Your task to perform on an android device: move an email to a new category in the gmail app Image 0: 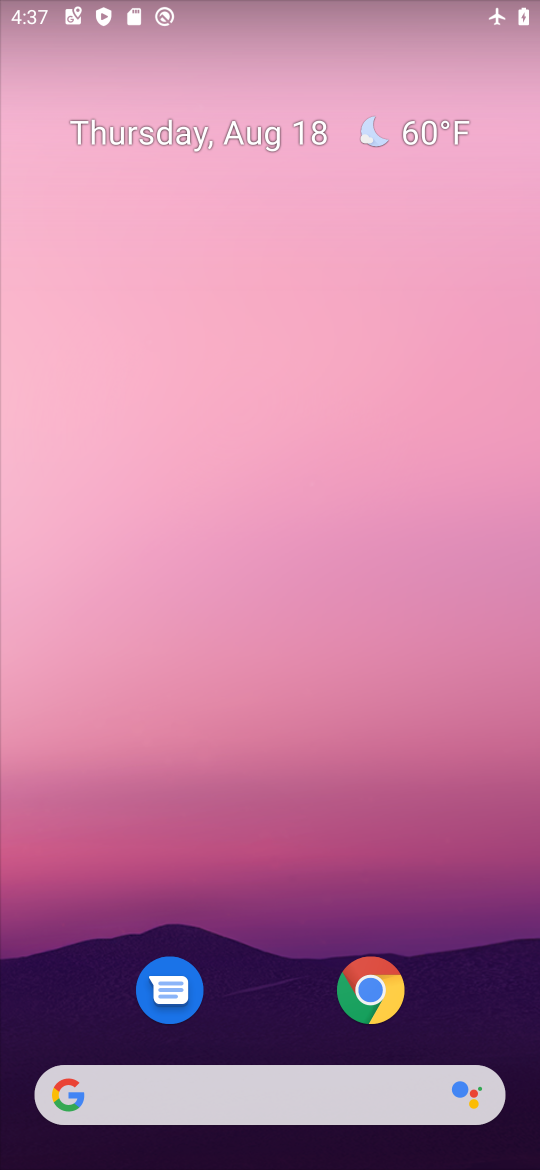
Step 0: drag from (327, 860) to (372, 189)
Your task to perform on an android device: move an email to a new category in the gmail app Image 1: 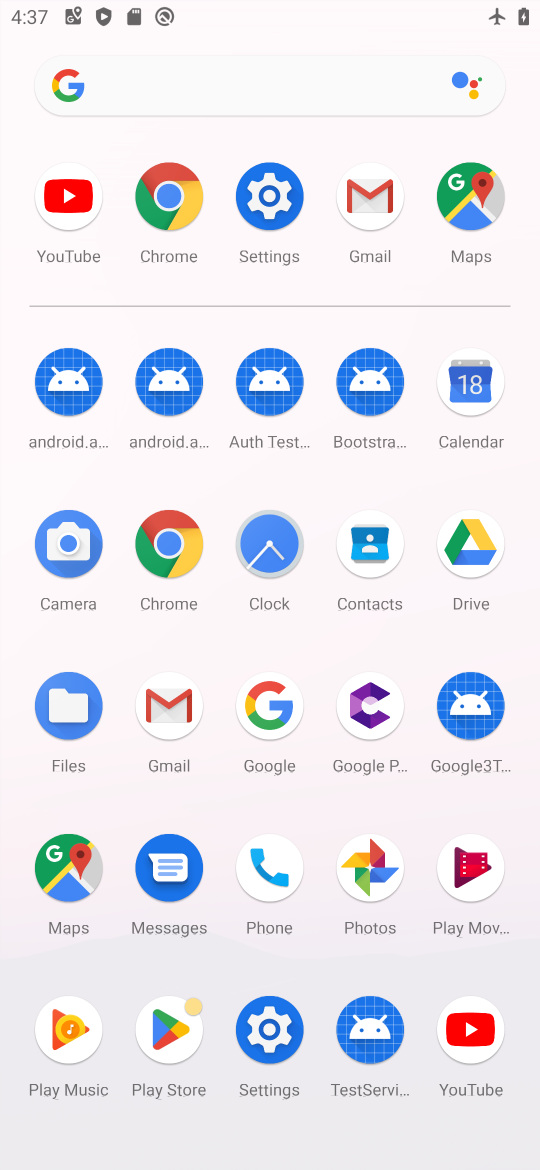
Step 1: click (160, 705)
Your task to perform on an android device: move an email to a new category in the gmail app Image 2: 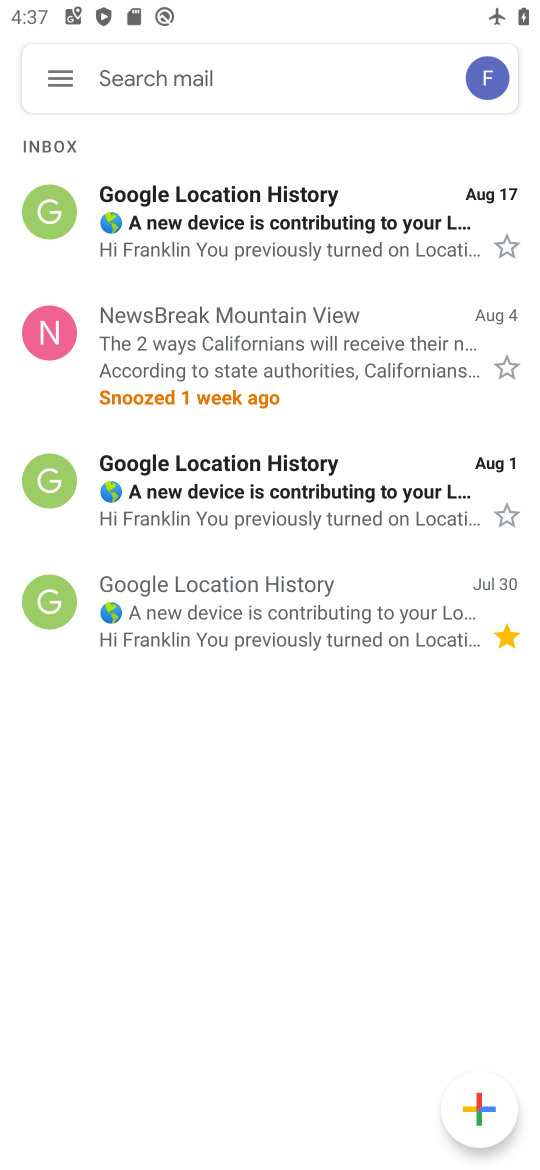
Step 2: click (61, 72)
Your task to perform on an android device: move an email to a new category in the gmail app Image 3: 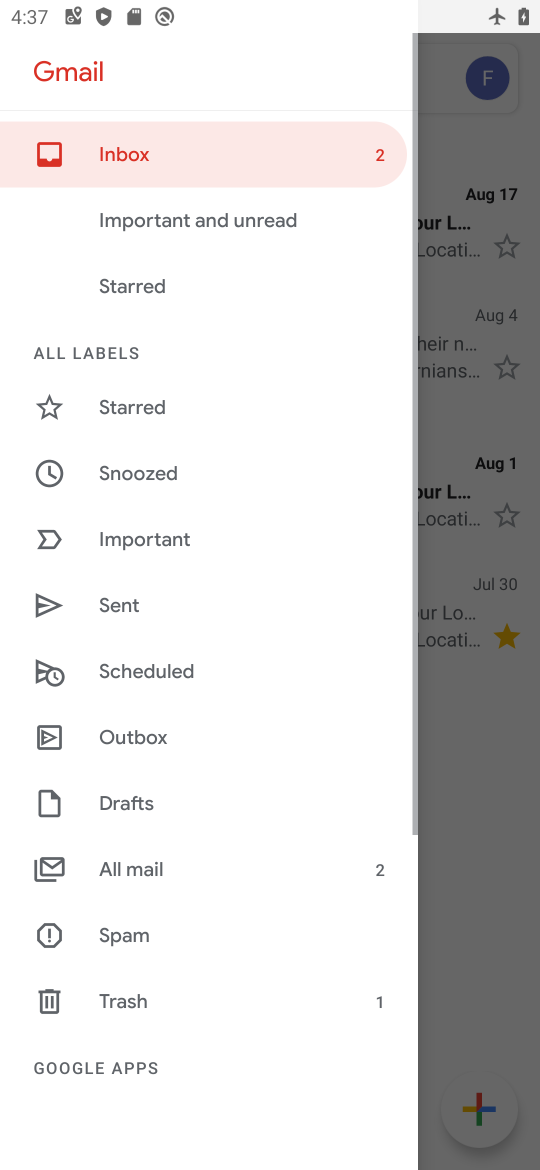
Step 3: drag from (180, 927) to (265, 281)
Your task to perform on an android device: move an email to a new category in the gmail app Image 4: 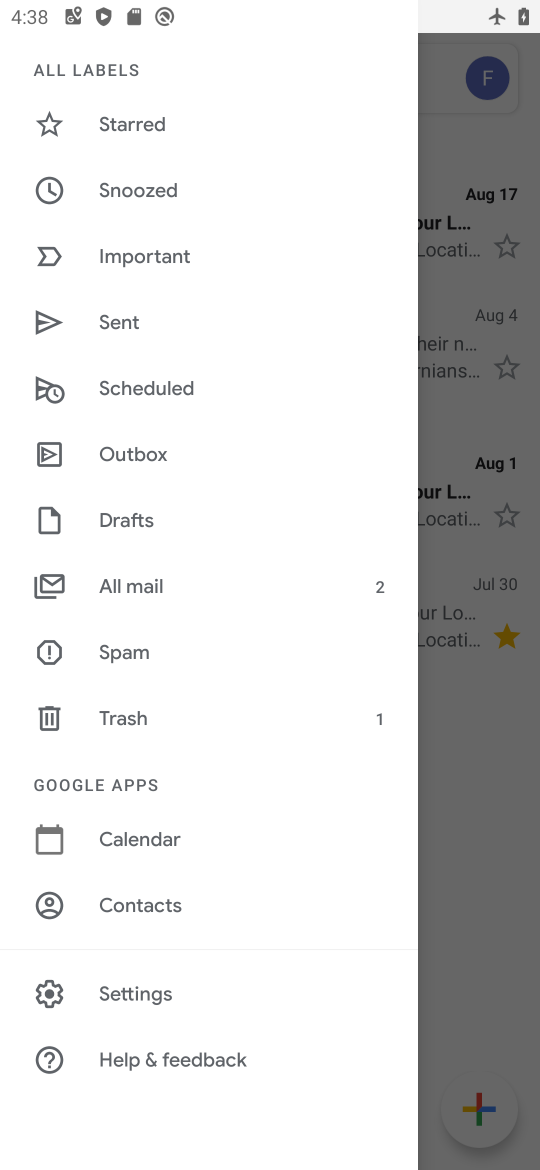
Step 4: drag from (128, 276) to (138, 749)
Your task to perform on an android device: move an email to a new category in the gmail app Image 5: 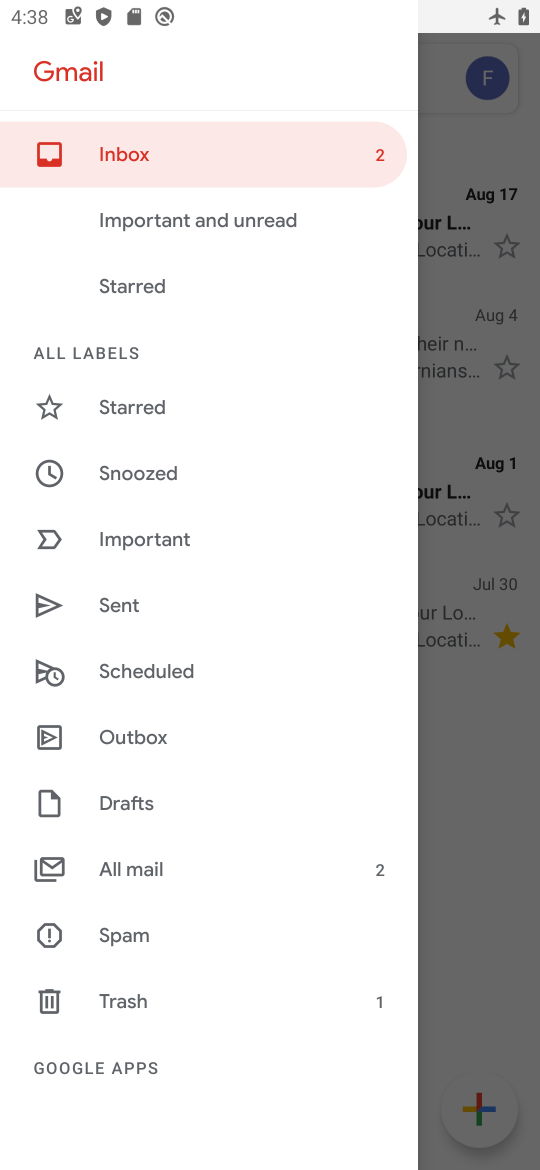
Step 5: click (142, 855)
Your task to perform on an android device: move an email to a new category in the gmail app Image 6: 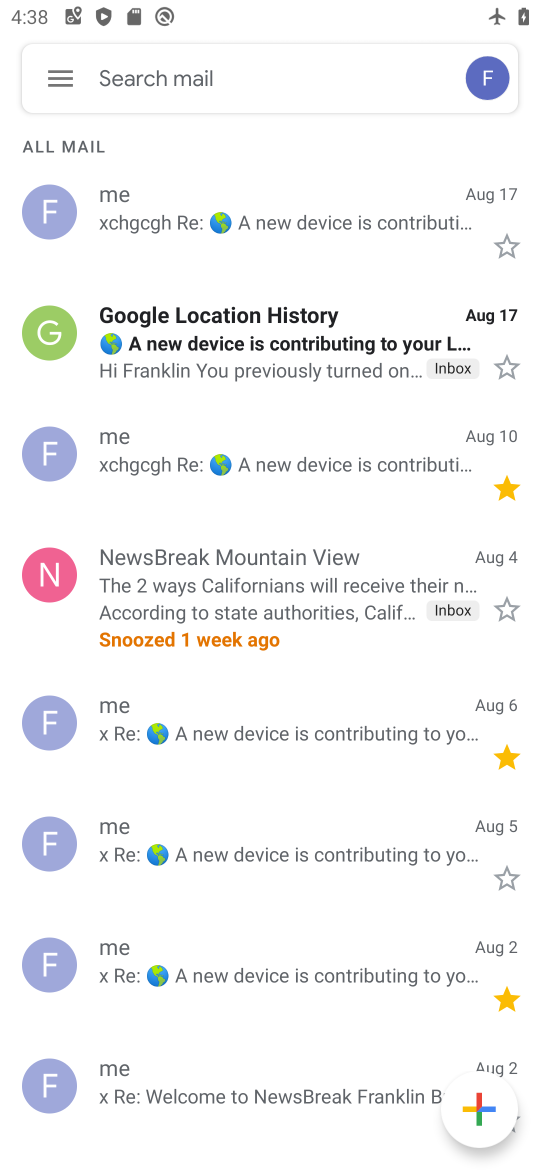
Step 6: click (364, 228)
Your task to perform on an android device: move an email to a new category in the gmail app Image 7: 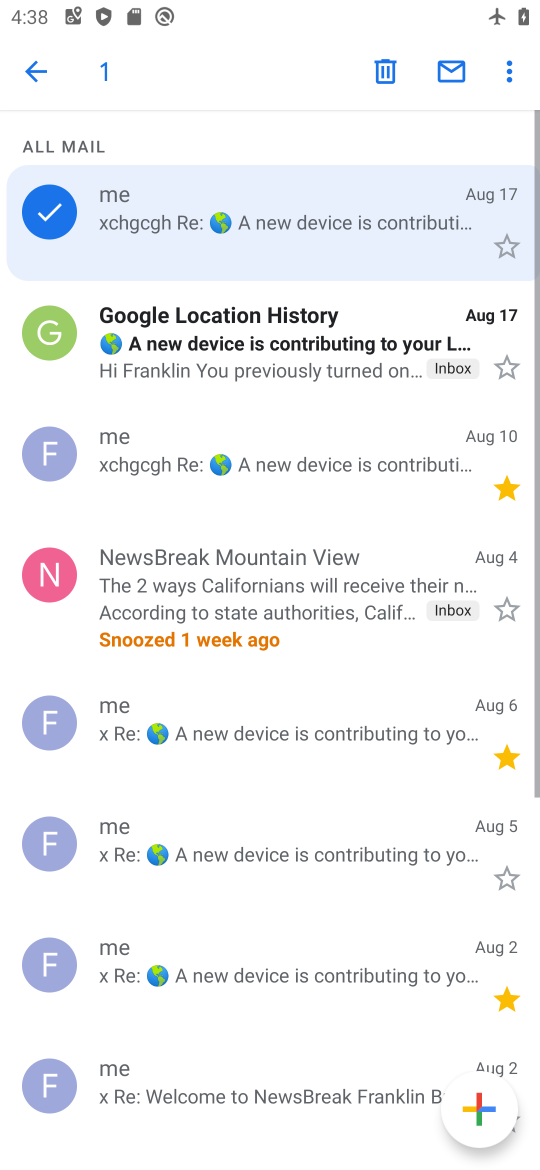
Step 7: click (518, 77)
Your task to perform on an android device: move an email to a new category in the gmail app Image 8: 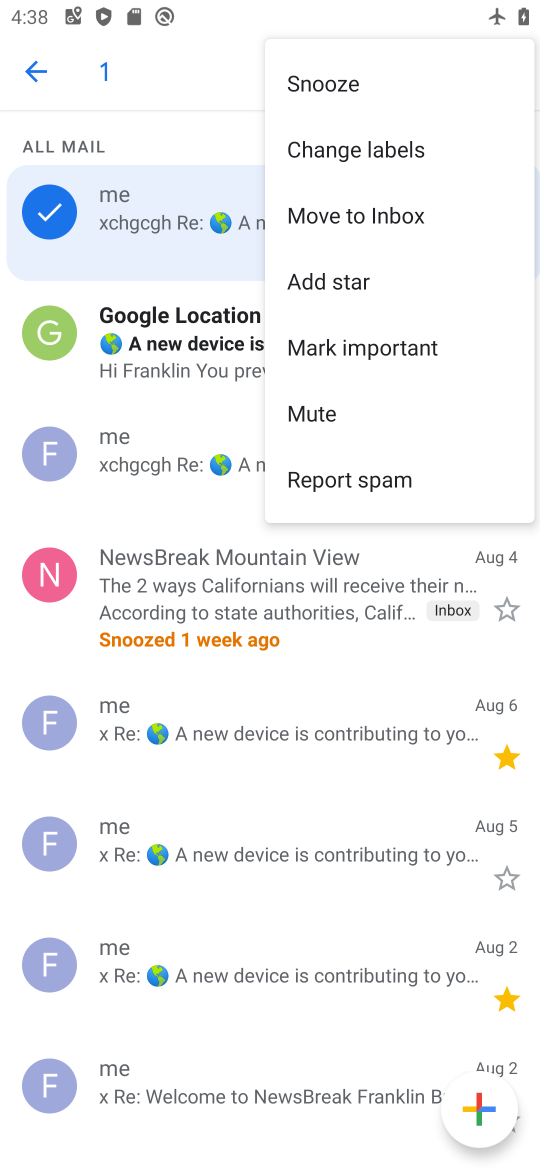
Step 8: press back button
Your task to perform on an android device: move an email to a new category in the gmail app Image 9: 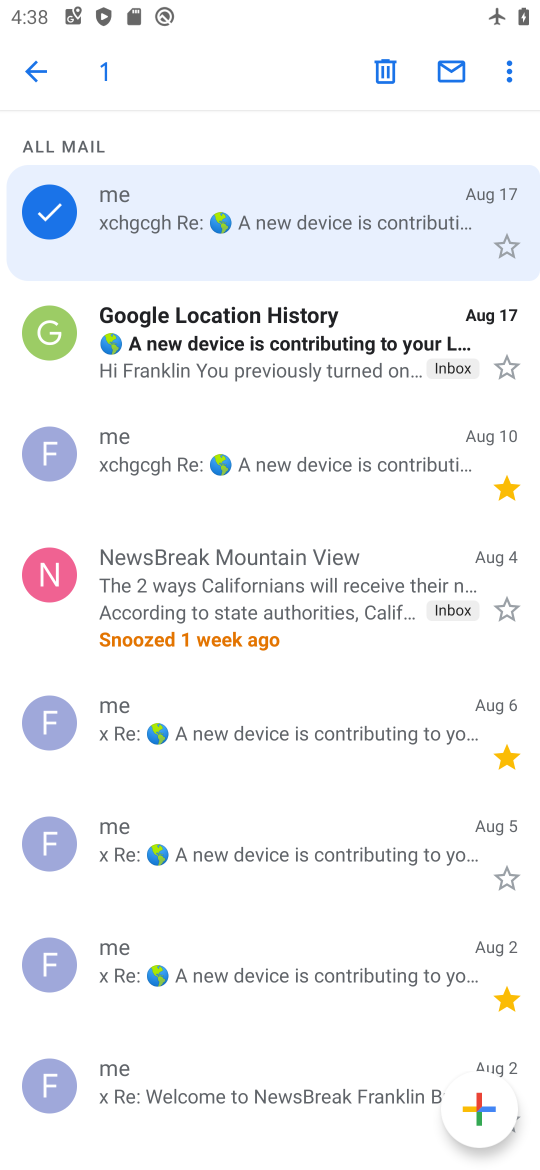
Step 9: press back button
Your task to perform on an android device: move an email to a new category in the gmail app Image 10: 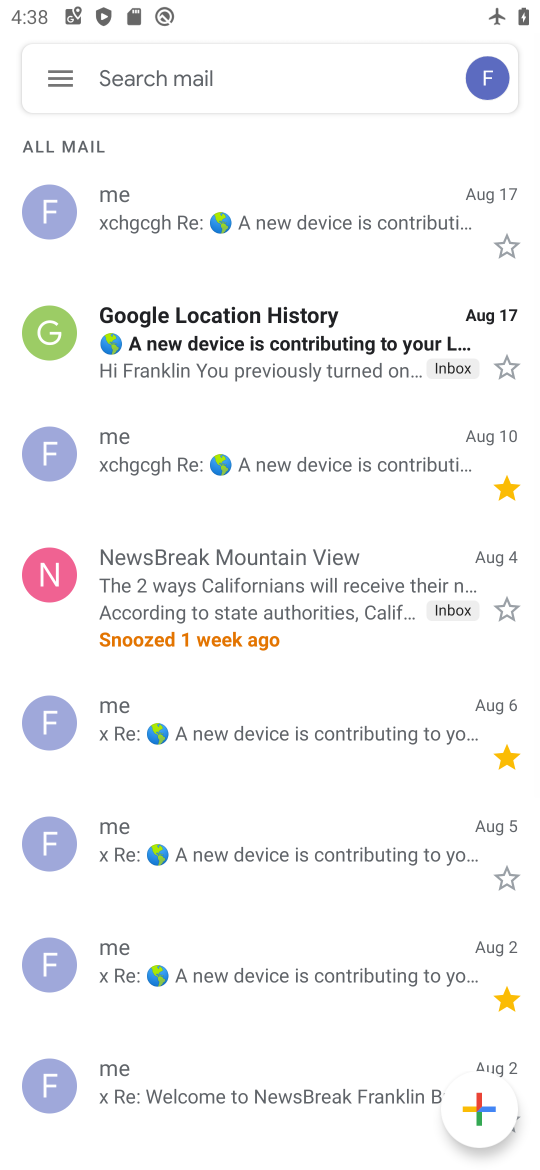
Step 10: click (56, 52)
Your task to perform on an android device: move an email to a new category in the gmail app Image 11: 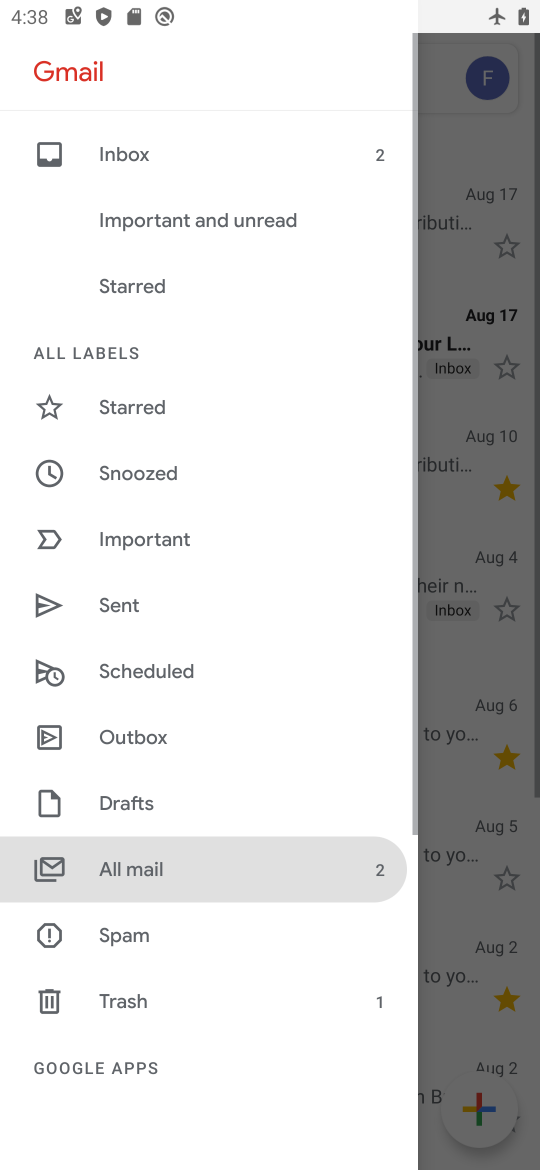
Step 11: drag from (107, 1002) to (249, 227)
Your task to perform on an android device: move an email to a new category in the gmail app Image 12: 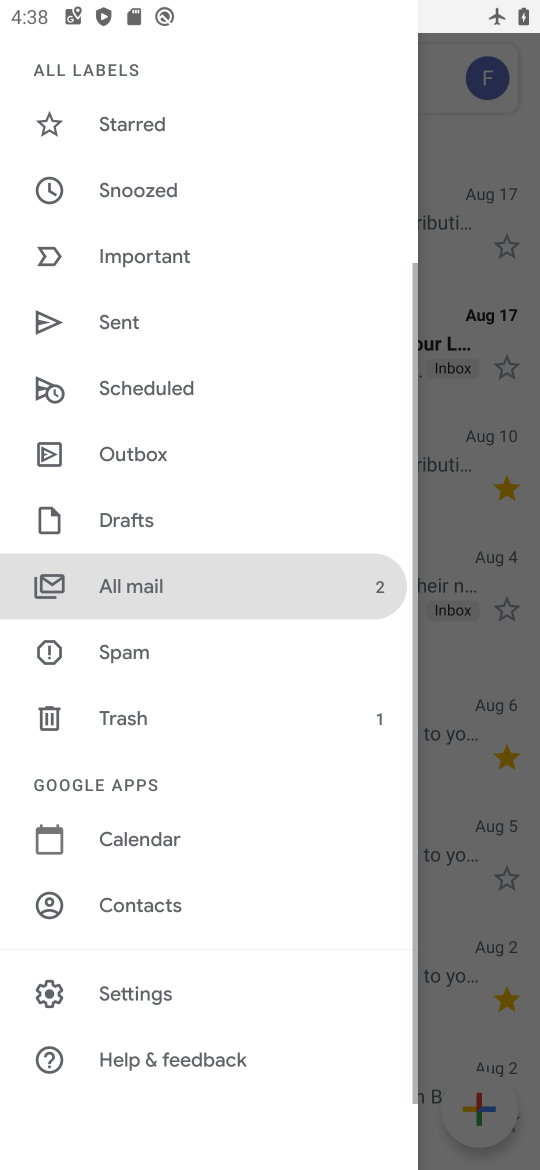
Step 12: click (131, 999)
Your task to perform on an android device: move an email to a new category in the gmail app Image 13: 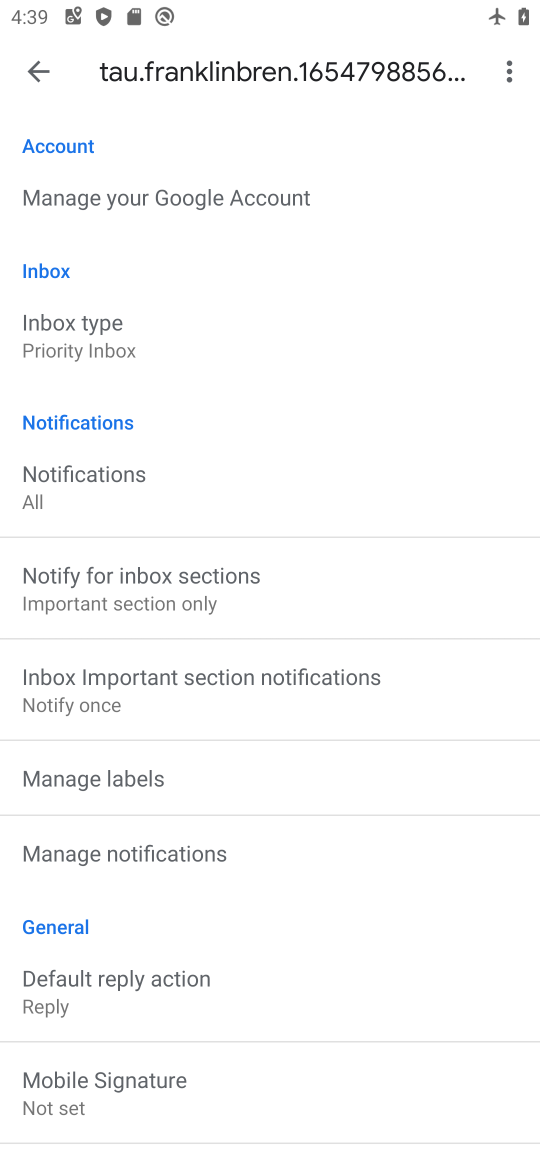
Step 13: click (130, 781)
Your task to perform on an android device: move an email to a new category in the gmail app Image 14: 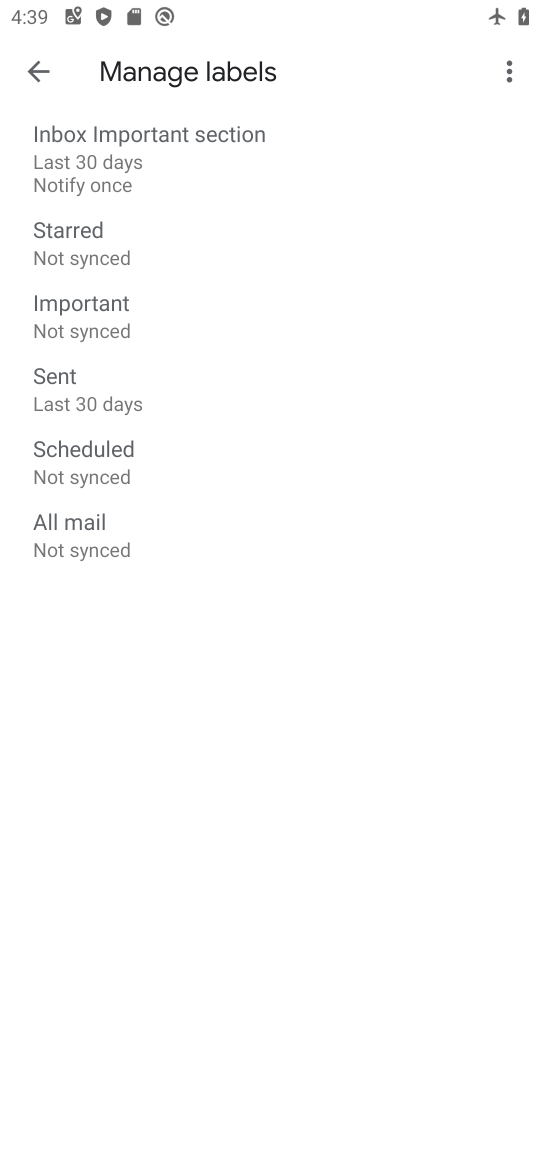
Step 14: task complete